Your task to perform on an android device: turn smart compose on in the gmail app Image 0: 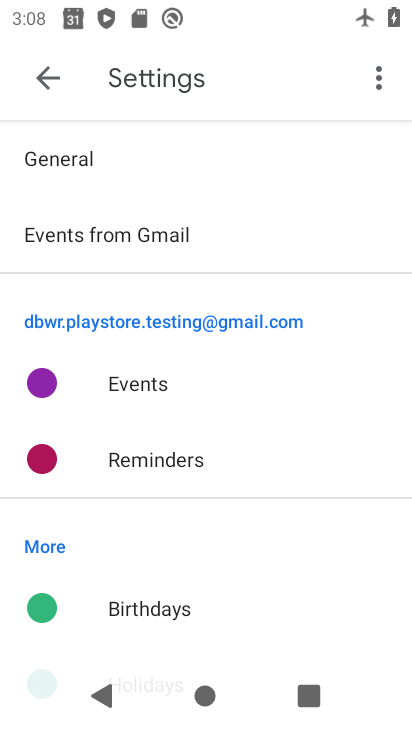
Step 0: press home button
Your task to perform on an android device: turn smart compose on in the gmail app Image 1: 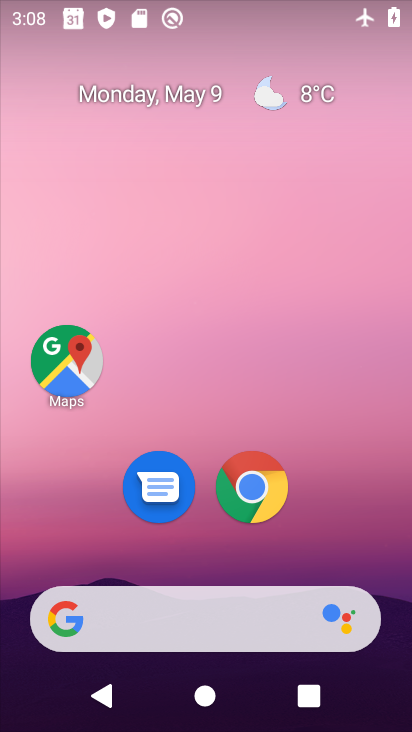
Step 1: drag from (205, 549) to (203, 111)
Your task to perform on an android device: turn smart compose on in the gmail app Image 2: 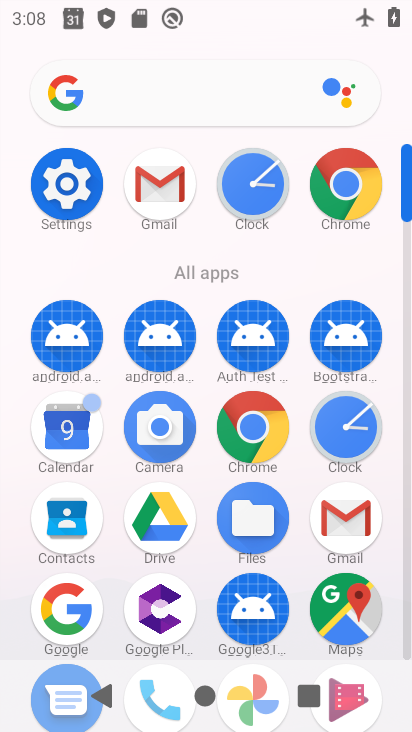
Step 2: click (343, 510)
Your task to perform on an android device: turn smart compose on in the gmail app Image 3: 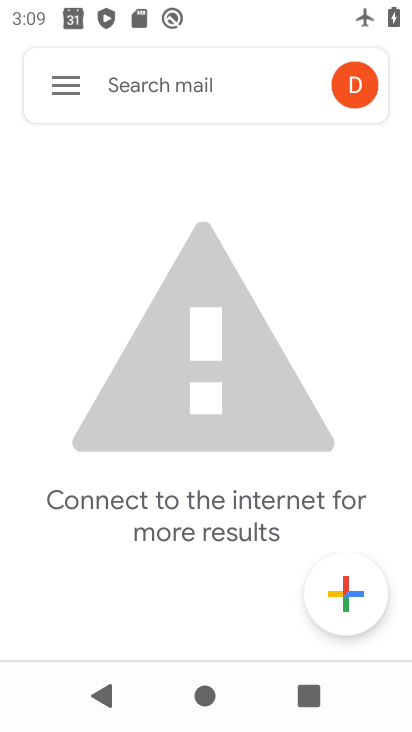
Step 3: click (63, 88)
Your task to perform on an android device: turn smart compose on in the gmail app Image 4: 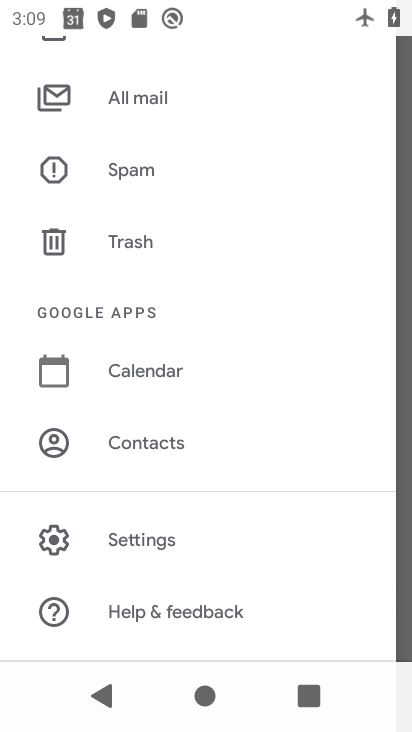
Step 4: click (141, 532)
Your task to perform on an android device: turn smart compose on in the gmail app Image 5: 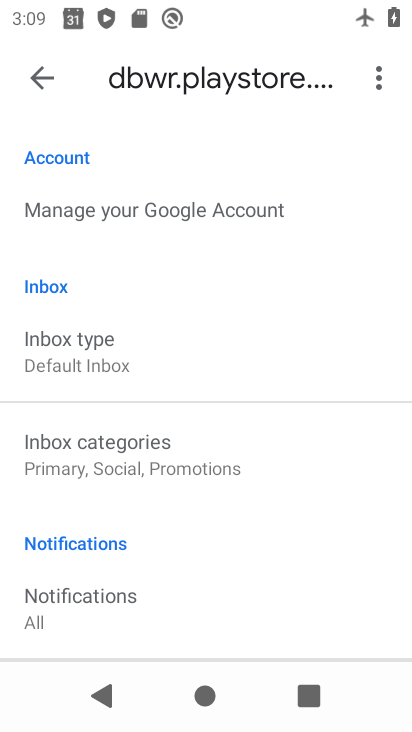
Step 5: task complete